Your task to perform on an android device: open app "Expedia: Hotels, Flights & Car" Image 0: 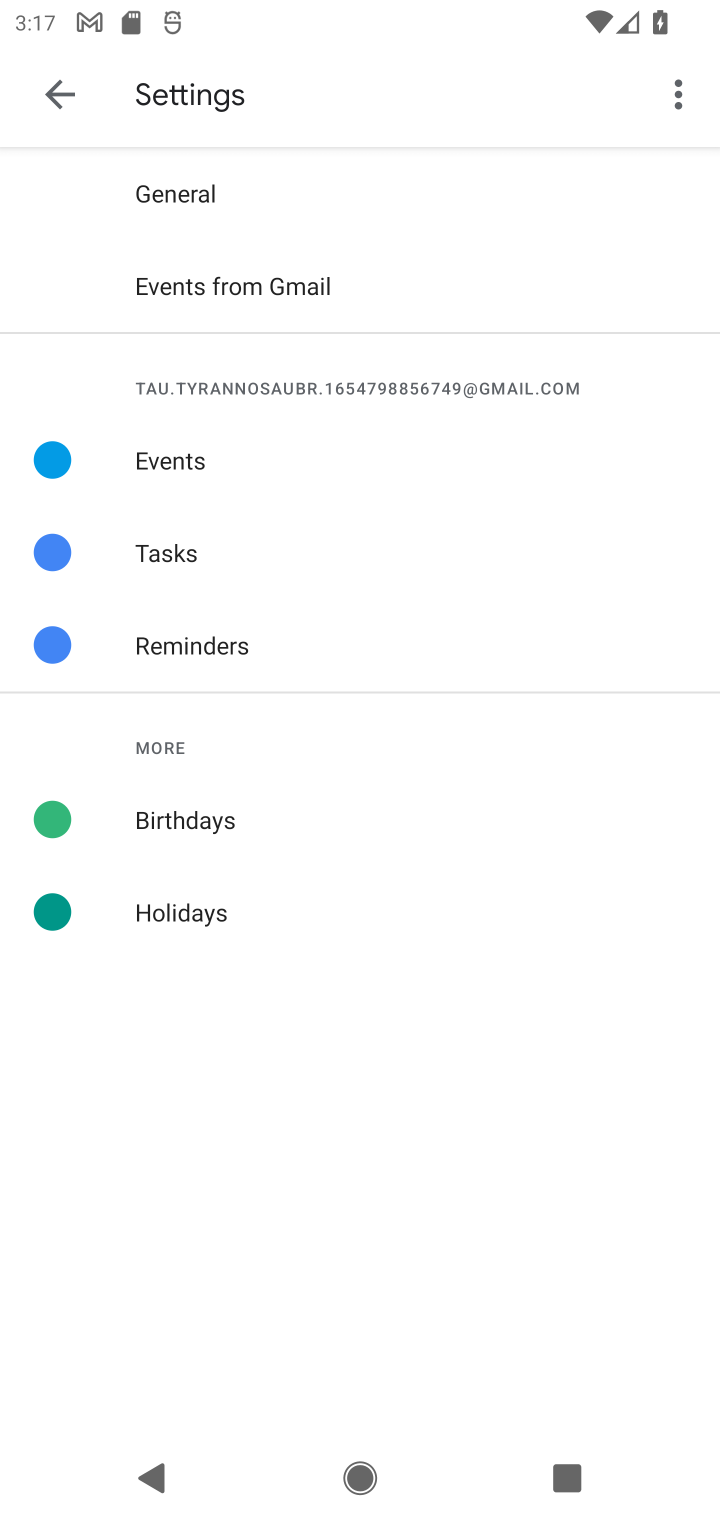
Step 0: press home button
Your task to perform on an android device: open app "Expedia: Hotels, Flights & Car" Image 1: 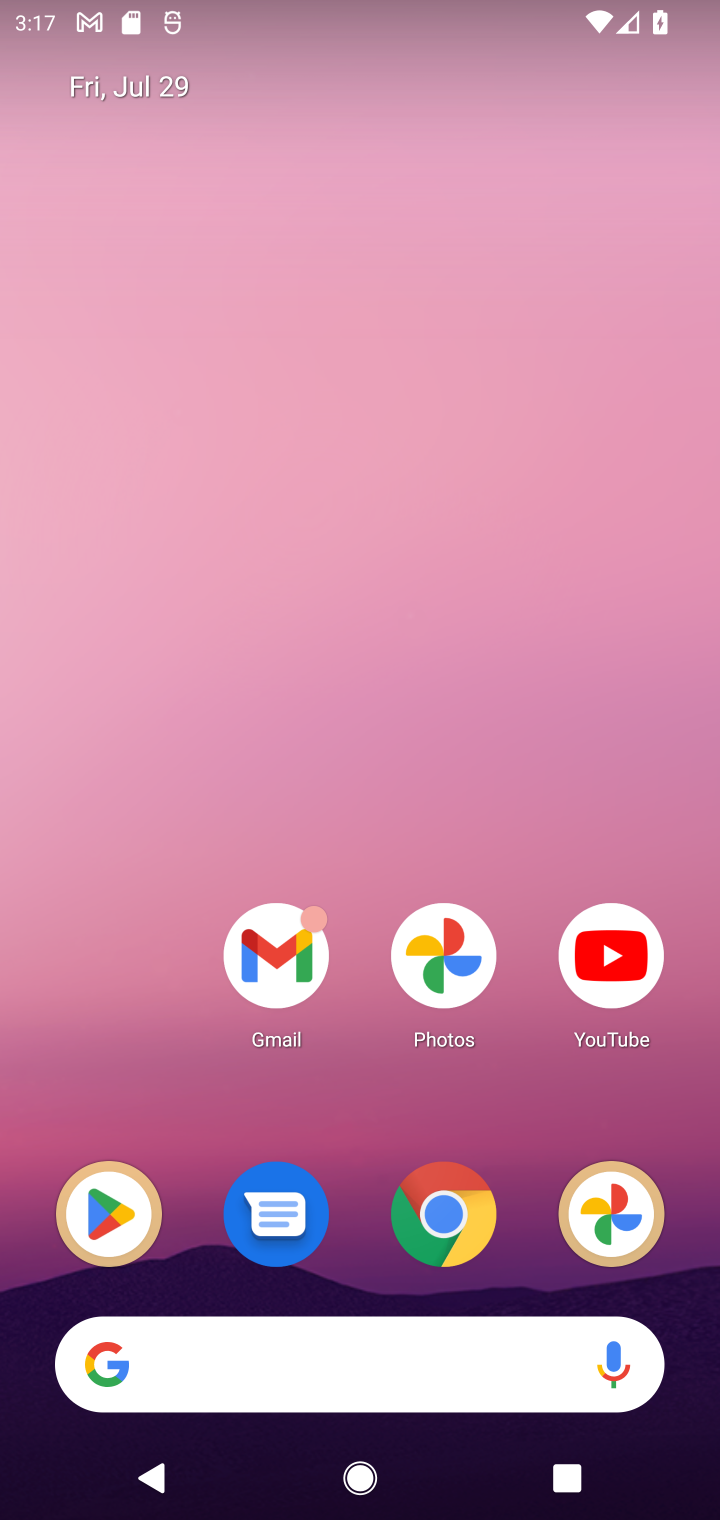
Step 1: click (130, 1193)
Your task to perform on an android device: open app "Expedia: Hotels, Flights & Car" Image 2: 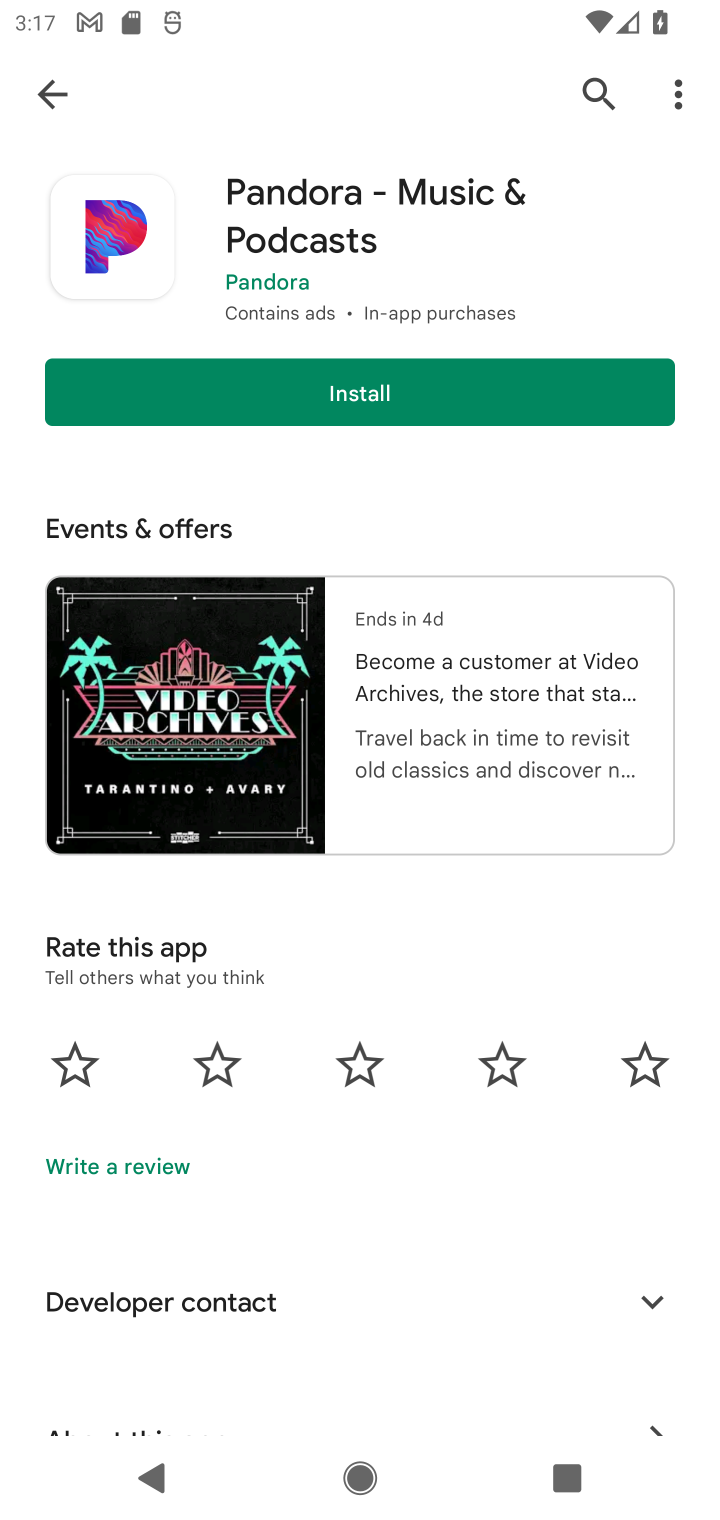
Step 2: click (608, 85)
Your task to perform on an android device: open app "Expedia: Hotels, Flights & Car" Image 3: 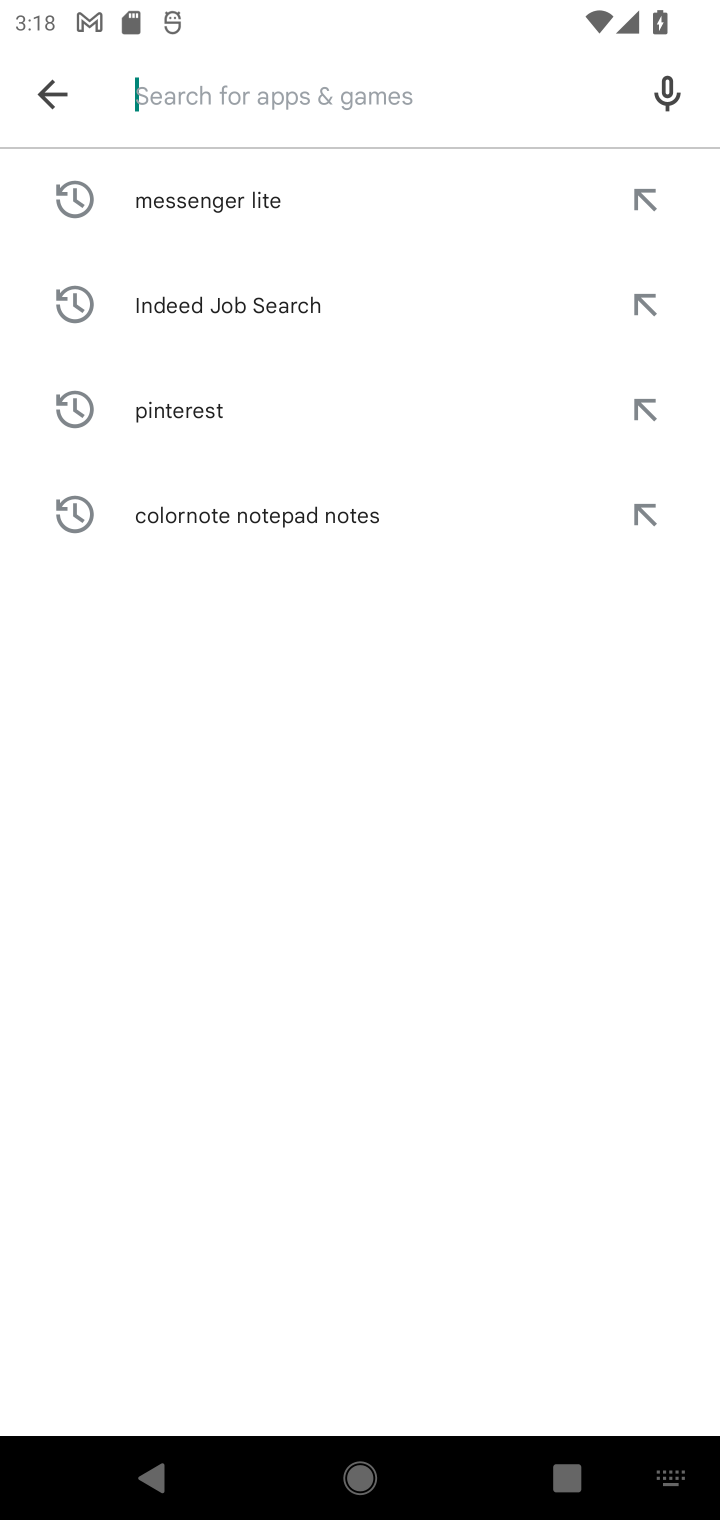
Step 3: type "Expedia: Hotels, Flights & Car"
Your task to perform on an android device: open app "Expedia: Hotels, Flights & Car" Image 4: 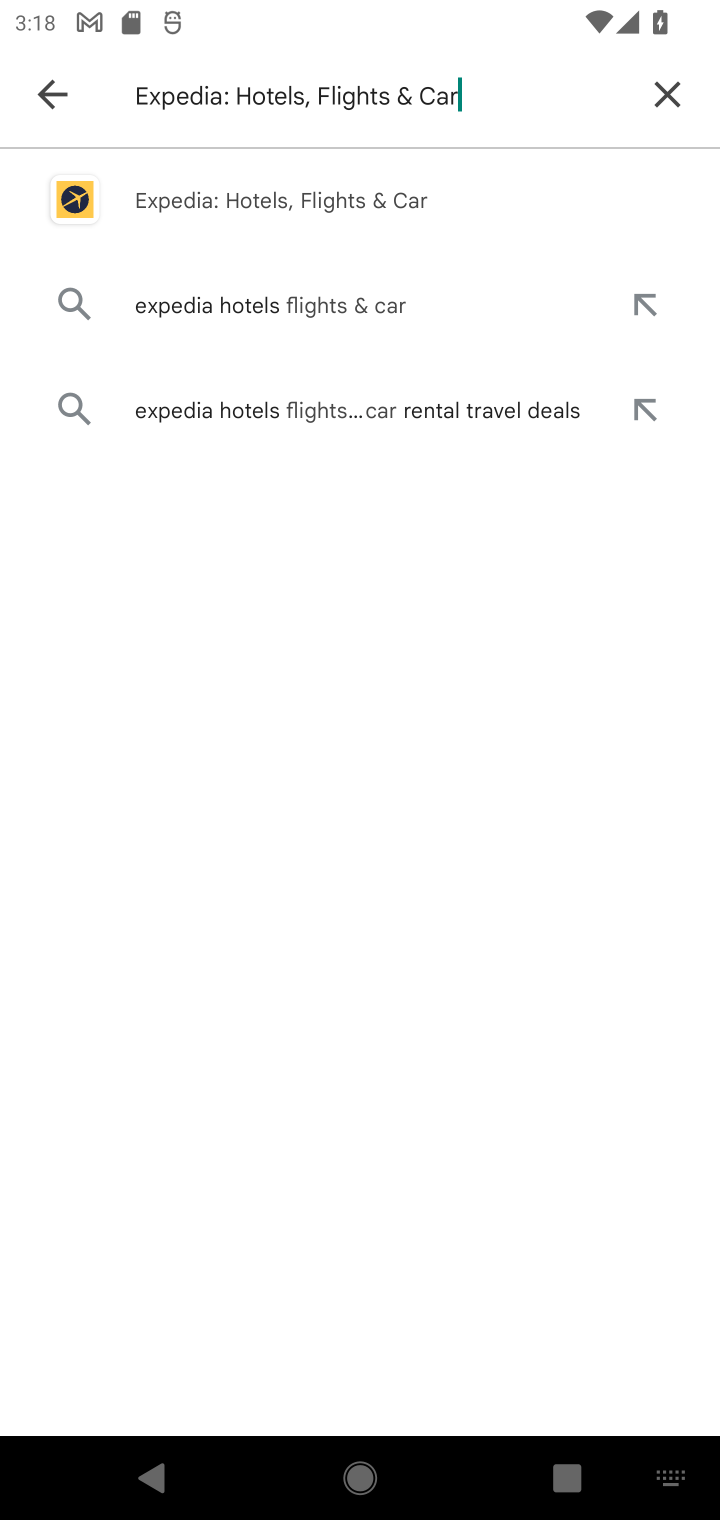
Step 4: click (468, 191)
Your task to perform on an android device: open app "Expedia: Hotels, Flights & Car" Image 5: 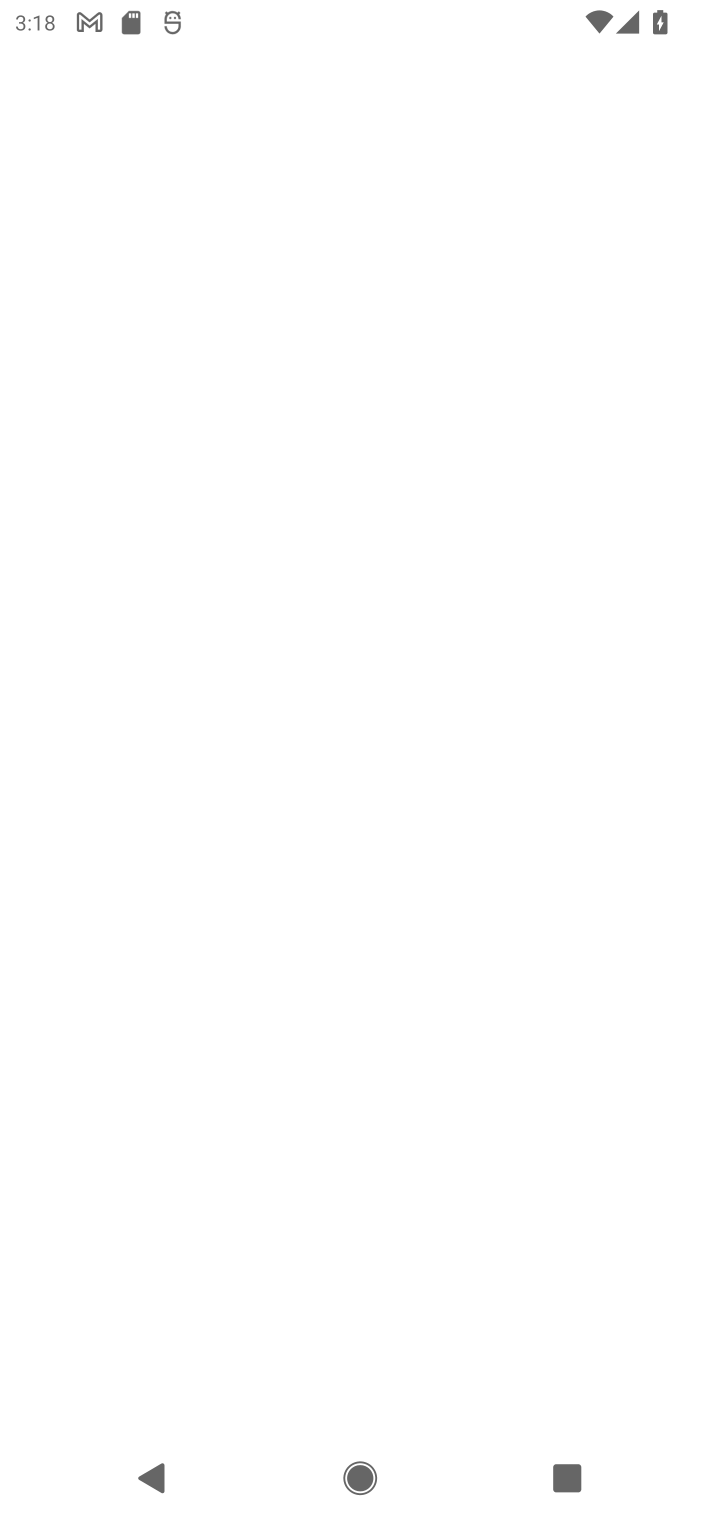
Step 5: click (468, 191)
Your task to perform on an android device: open app "Expedia: Hotels, Flights & Car" Image 6: 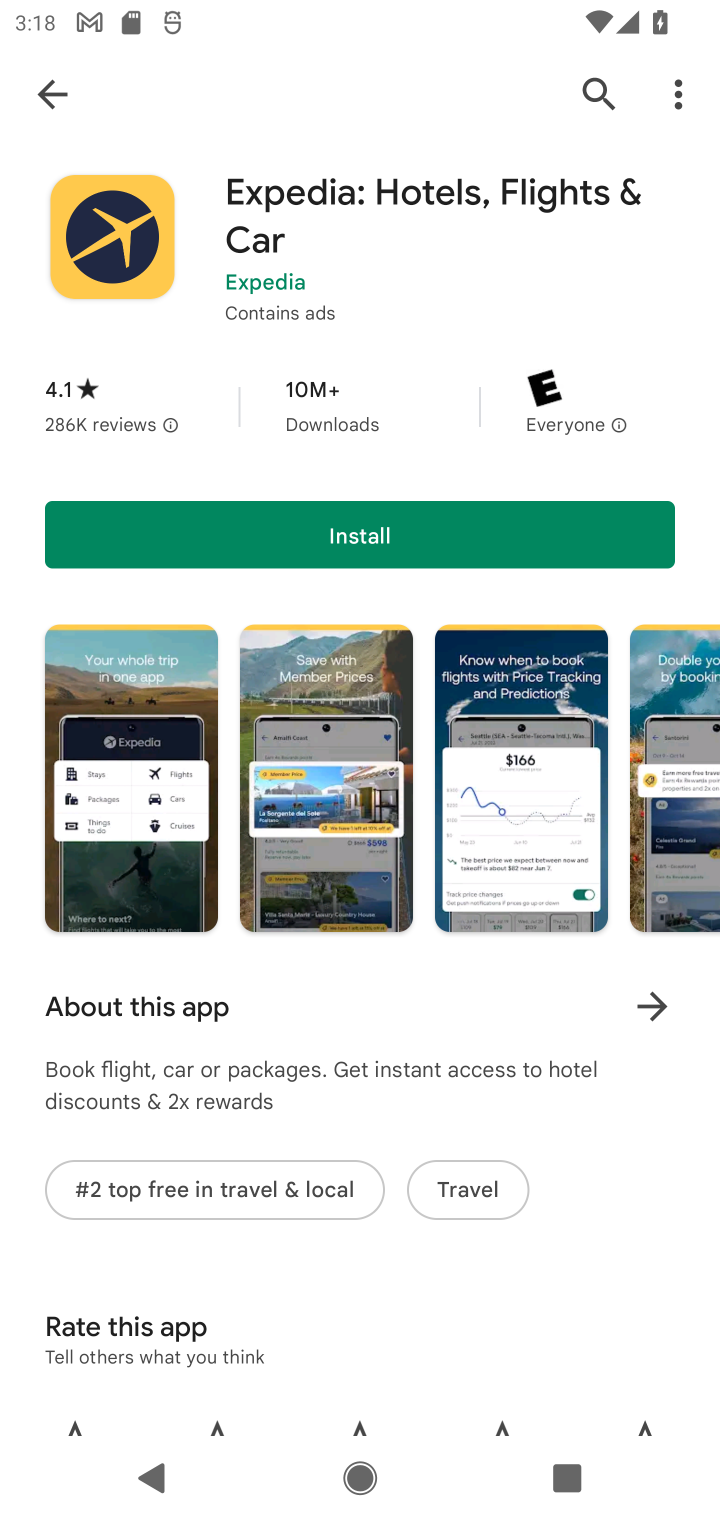
Step 6: task complete